Your task to perform on an android device: turn on the 24-hour format for clock Image 0: 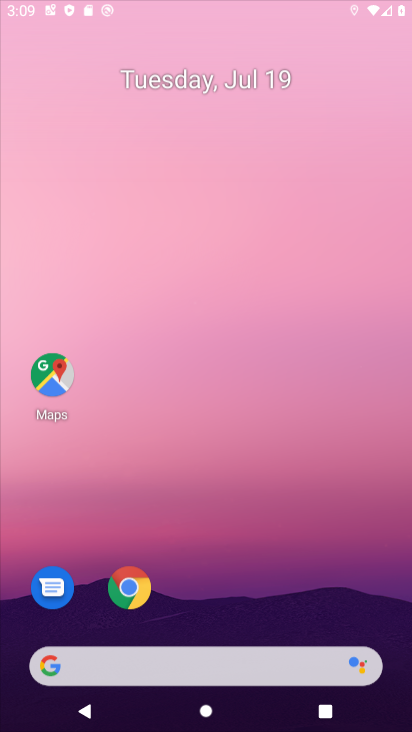
Step 0: click (138, 582)
Your task to perform on an android device: turn on the 24-hour format for clock Image 1: 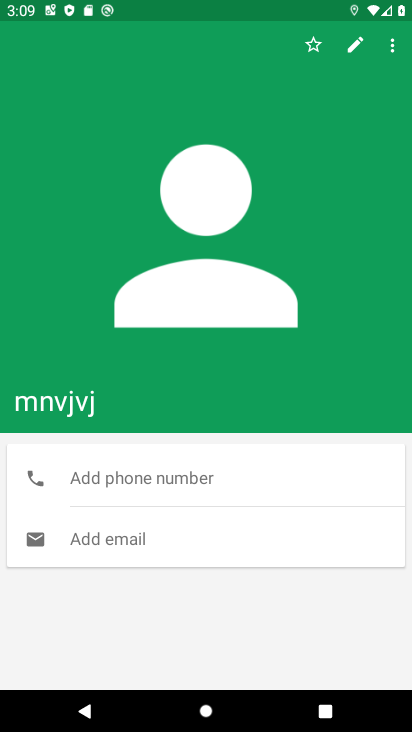
Step 1: press home button
Your task to perform on an android device: turn on the 24-hour format for clock Image 2: 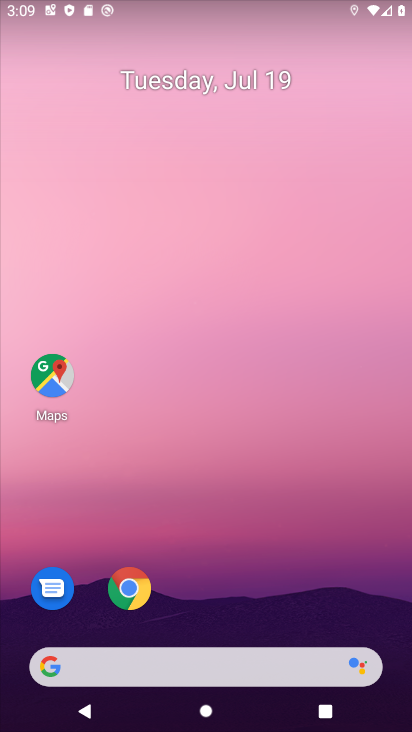
Step 2: drag from (238, 541) to (184, 155)
Your task to perform on an android device: turn on the 24-hour format for clock Image 3: 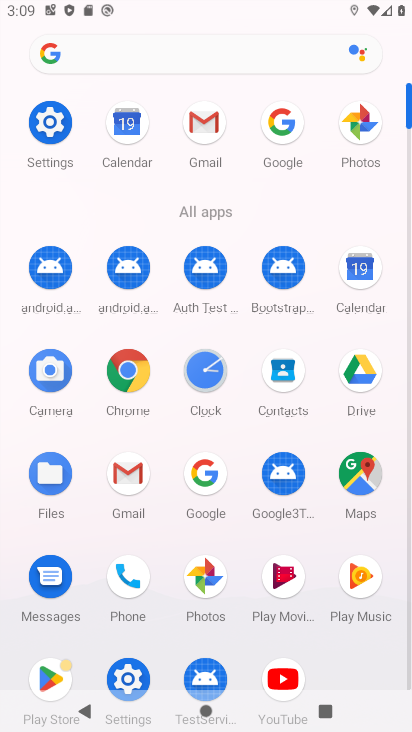
Step 3: click (207, 376)
Your task to perform on an android device: turn on the 24-hour format for clock Image 4: 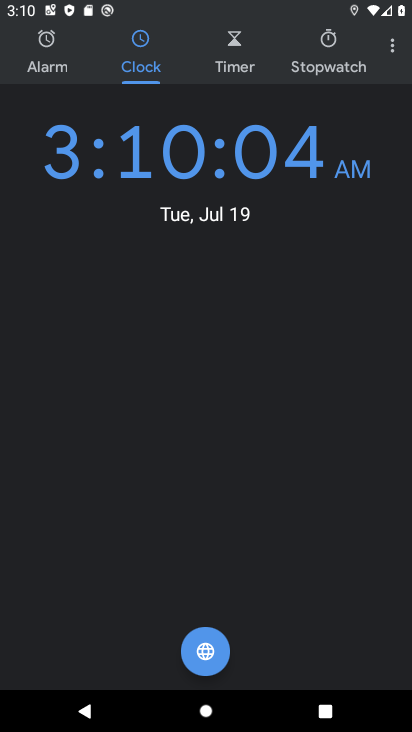
Step 4: click (393, 44)
Your task to perform on an android device: turn on the 24-hour format for clock Image 5: 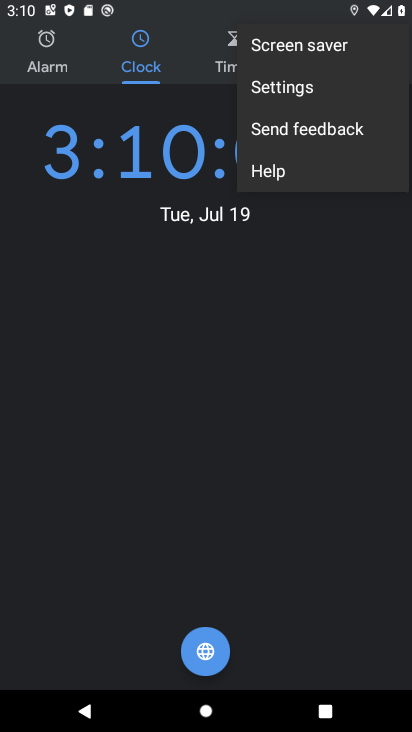
Step 5: click (286, 93)
Your task to perform on an android device: turn on the 24-hour format for clock Image 6: 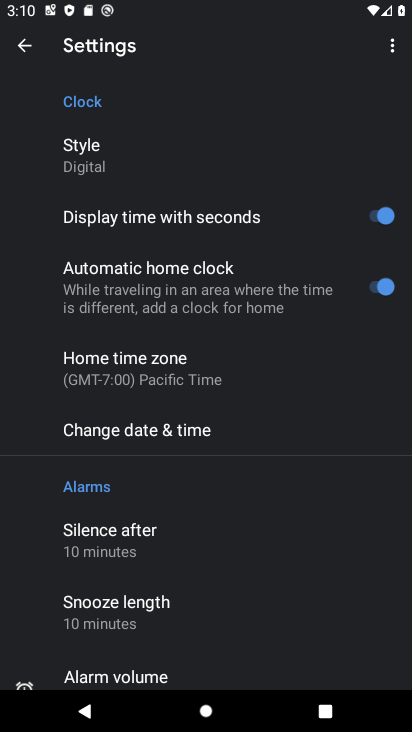
Step 6: click (151, 429)
Your task to perform on an android device: turn on the 24-hour format for clock Image 7: 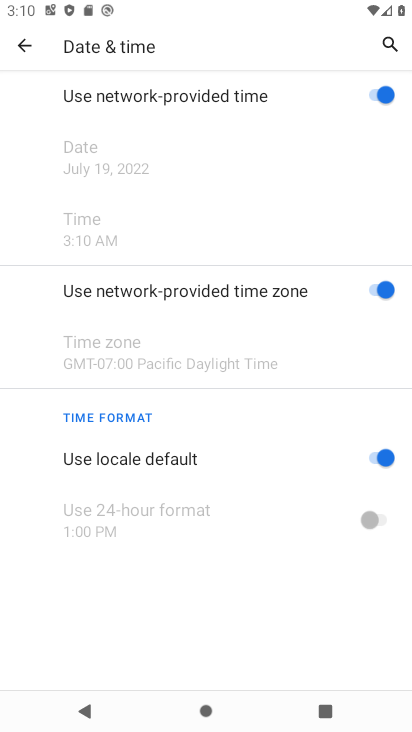
Step 7: click (379, 451)
Your task to perform on an android device: turn on the 24-hour format for clock Image 8: 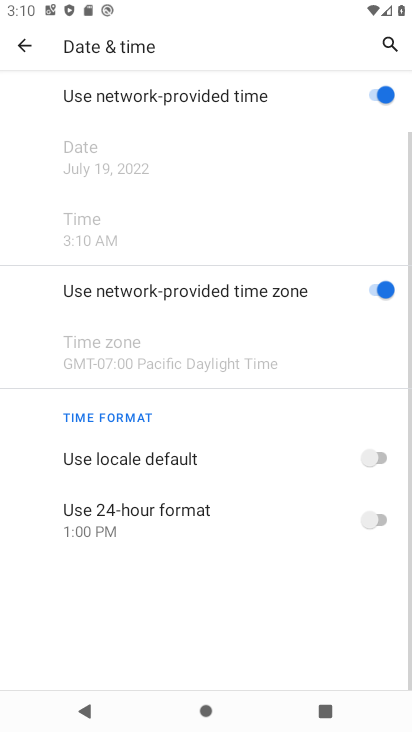
Step 8: click (374, 526)
Your task to perform on an android device: turn on the 24-hour format for clock Image 9: 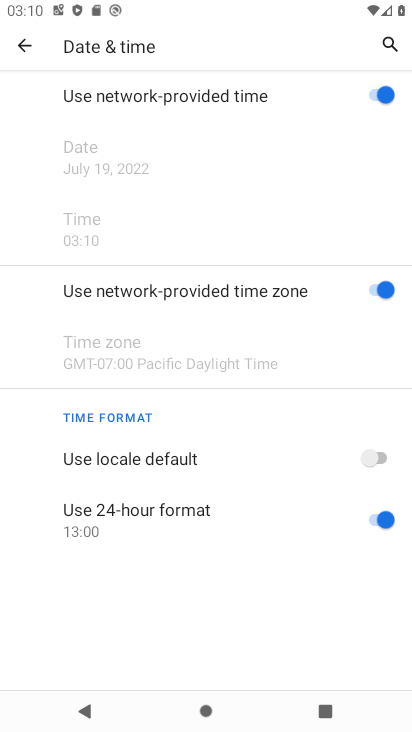
Step 9: task complete